Your task to perform on an android device: Play the last video I watched on Youtube Image 0: 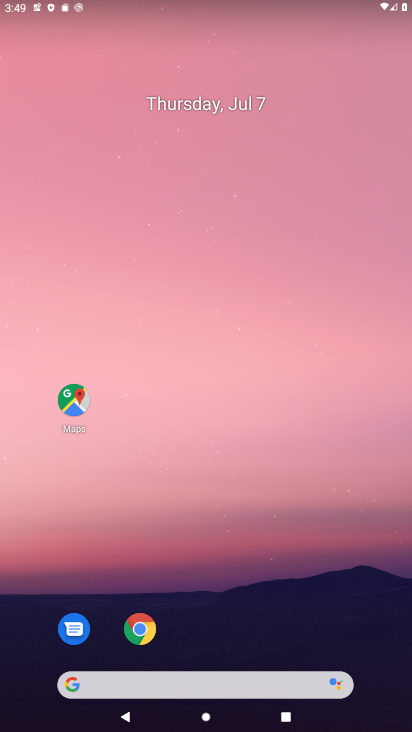
Step 0: click (222, 133)
Your task to perform on an android device: Play the last video I watched on Youtube Image 1: 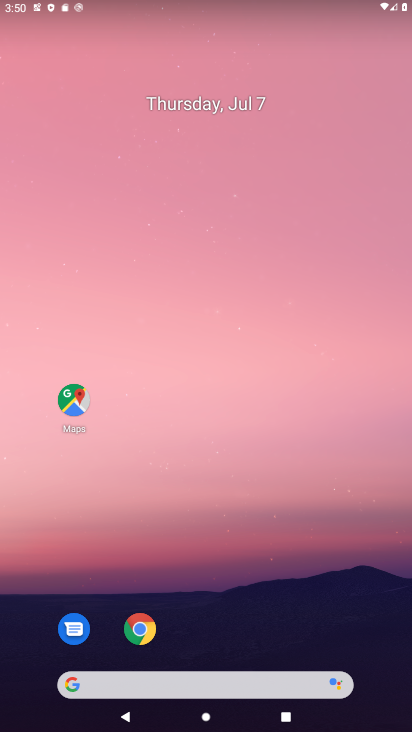
Step 1: drag from (250, 624) to (131, 247)
Your task to perform on an android device: Play the last video I watched on Youtube Image 2: 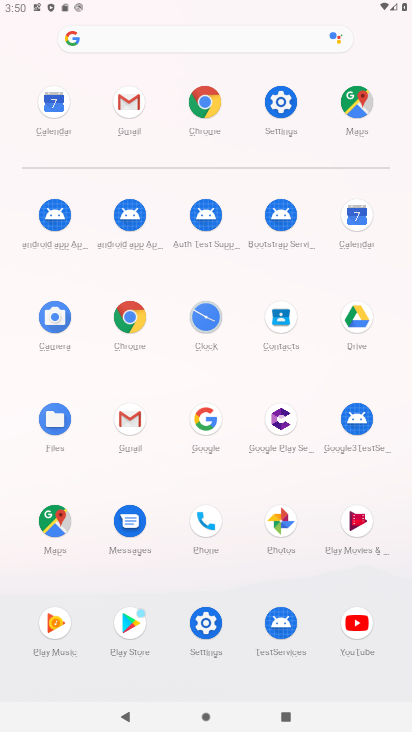
Step 2: click (359, 621)
Your task to perform on an android device: Play the last video I watched on Youtube Image 3: 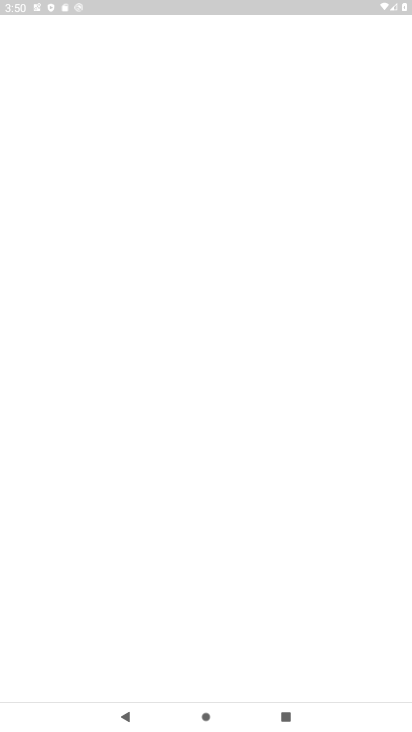
Step 3: task complete